Your task to perform on an android device: check storage Image 0: 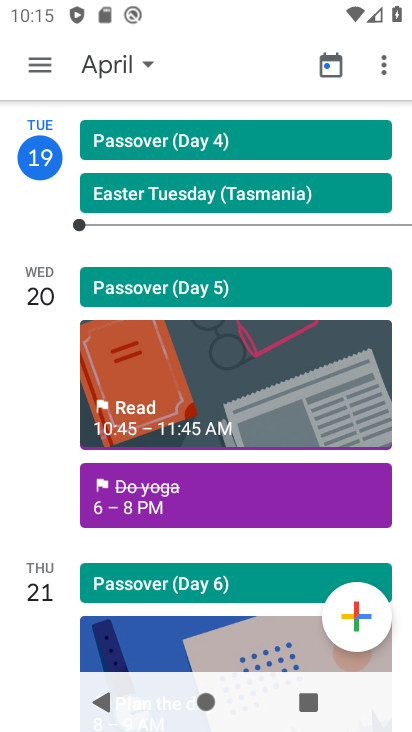
Step 0: press home button
Your task to perform on an android device: check storage Image 1: 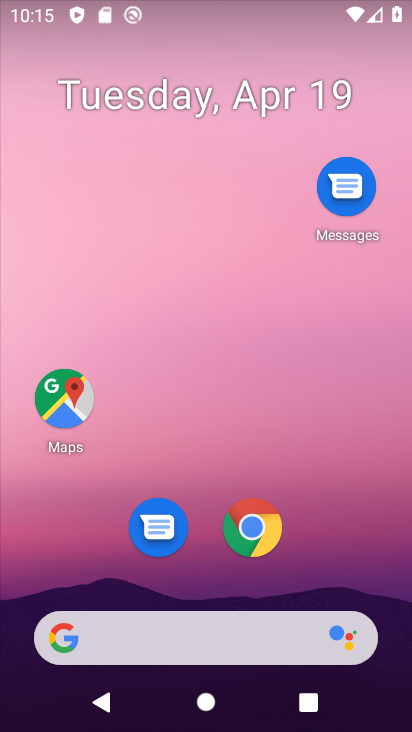
Step 1: drag from (347, 549) to (291, 204)
Your task to perform on an android device: check storage Image 2: 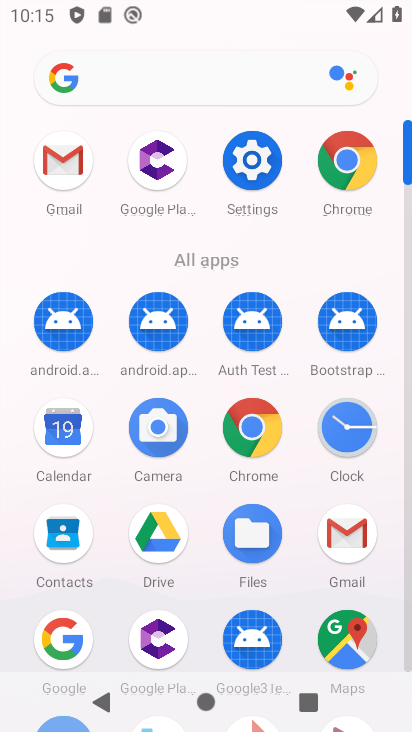
Step 2: click (244, 172)
Your task to perform on an android device: check storage Image 3: 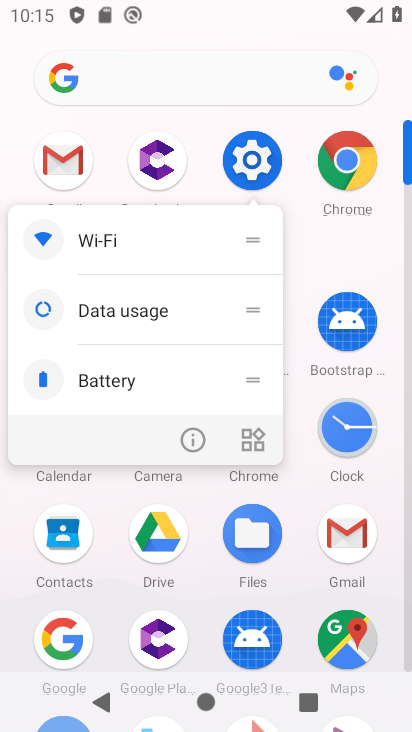
Step 3: click (248, 168)
Your task to perform on an android device: check storage Image 4: 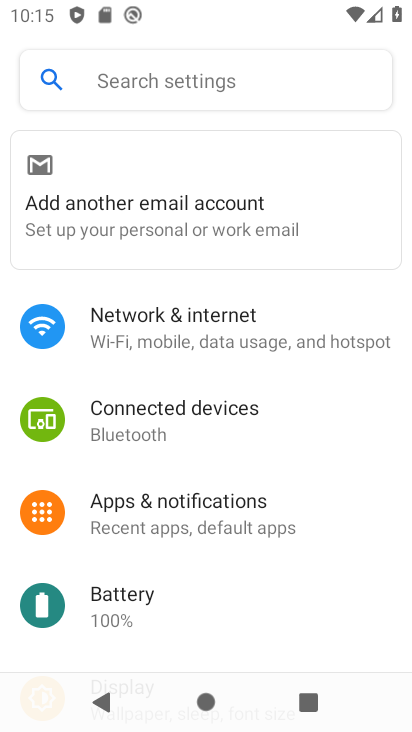
Step 4: drag from (306, 575) to (322, 243)
Your task to perform on an android device: check storage Image 5: 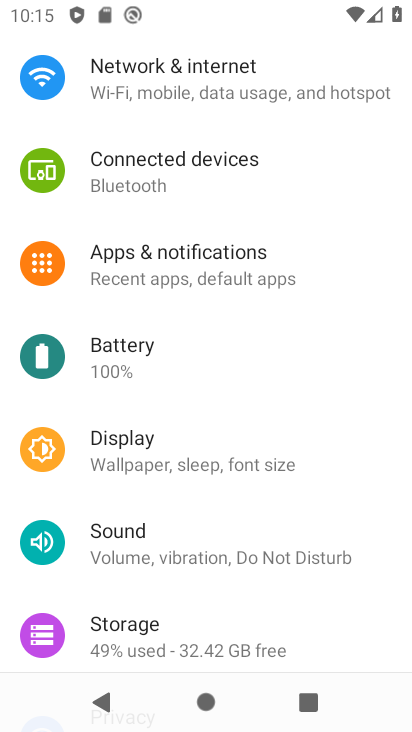
Step 5: click (195, 649)
Your task to perform on an android device: check storage Image 6: 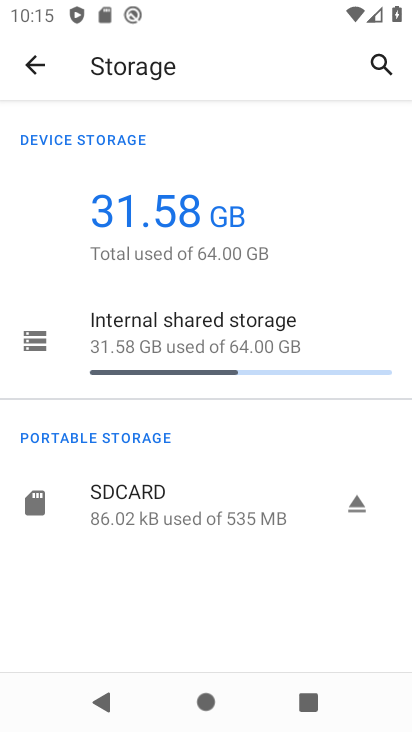
Step 6: task complete